Your task to perform on an android device: Do I have any events this weekend? Image 0: 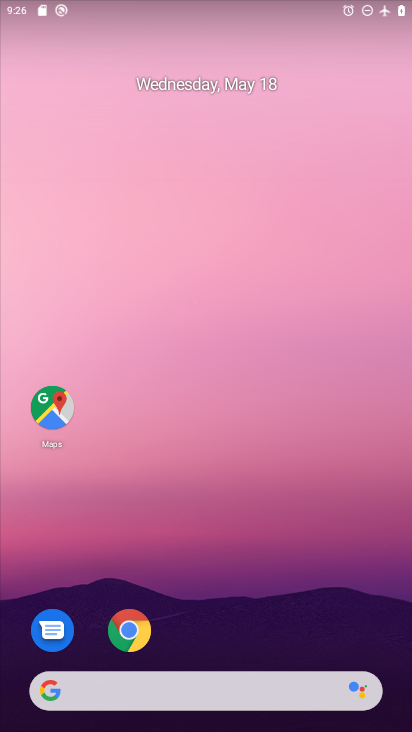
Step 0: drag from (202, 668) to (178, 89)
Your task to perform on an android device: Do I have any events this weekend? Image 1: 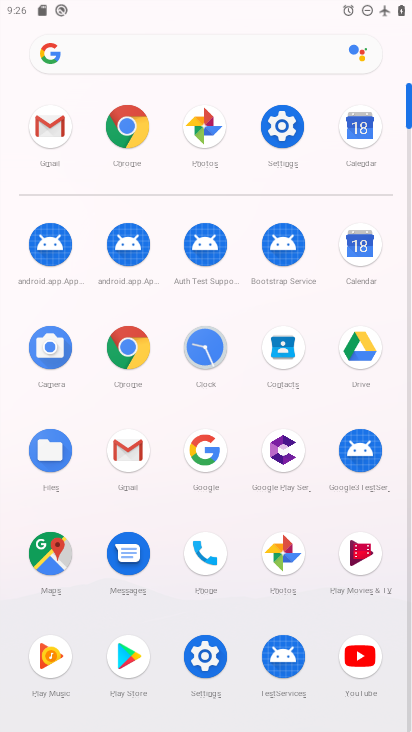
Step 1: click (360, 248)
Your task to perform on an android device: Do I have any events this weekend? Image 2: 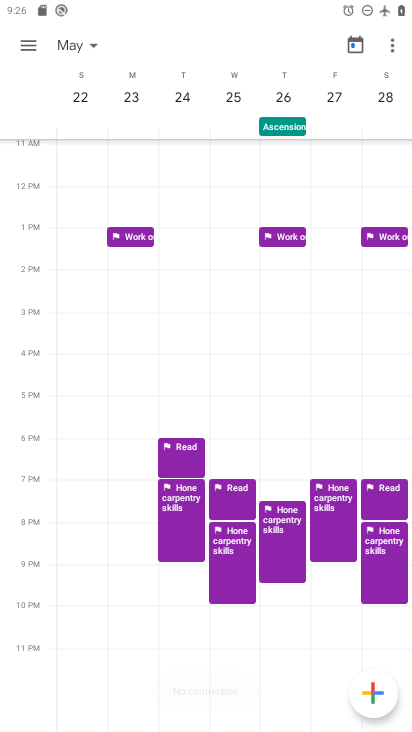
Step 2: click (346, 44)
Your task to perform on an android device: Do I have any events this weekend? Image 3: 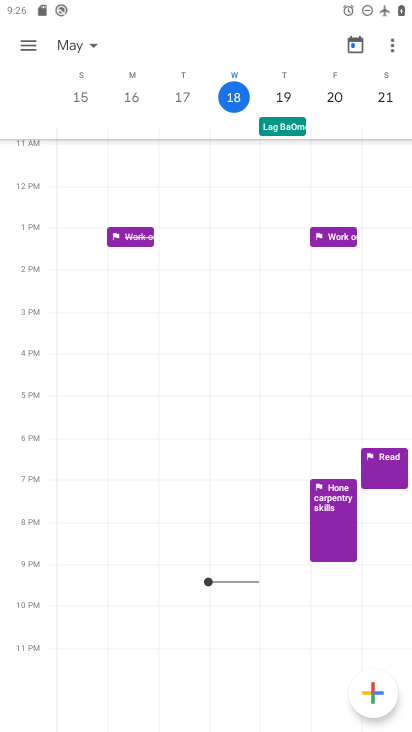
Step 3: task complete